Your task to perform on an android device: open app "Upside-Cash back on gas & food" (install if not already installed) and go to login screen Image 0: 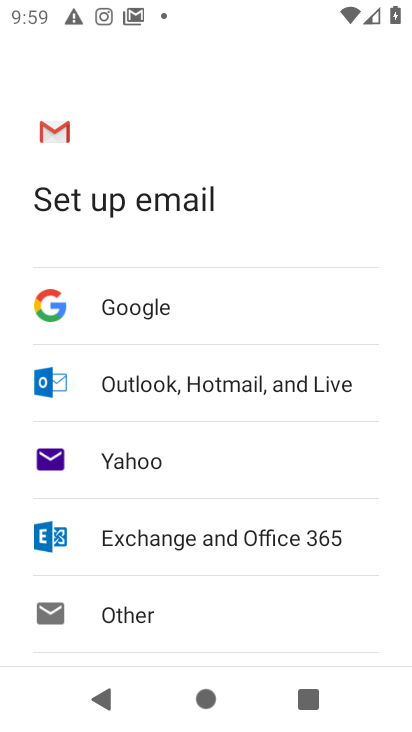
Step 0: press home button
Your task to perform on an android device: open app "Upside-Cash back on gas & food" (install if not already installed) and go to login screen Image 1: 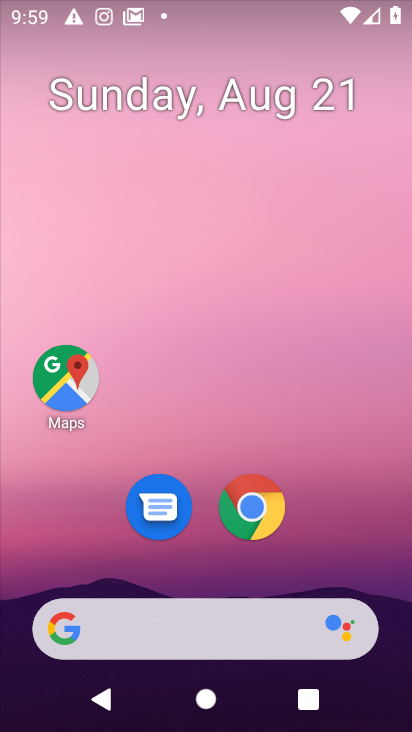
Step 1: drag from (195, 388) to (208, 27)
Your task to perform on an android device: open app "Upside-Cash back on gas & food" (install if not already installed) and go to login screen Image 2: 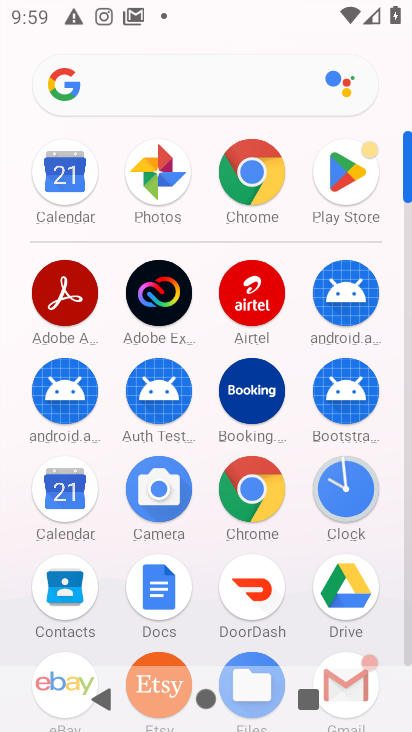
Step 2: click (345, 192)
Your task to perform on an android device: open app "Upside-Cash back on gas & food" (install if not already installed) and go to login screen Image 3: 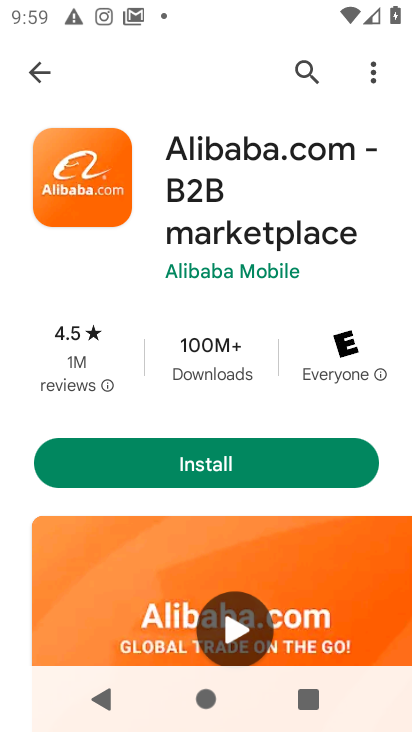
Step 3: click (30, 69)
Your task to perform on an android device: open app "Upside-Cash back on gas & food" (install if not already installed) and go to login screen Image 4: 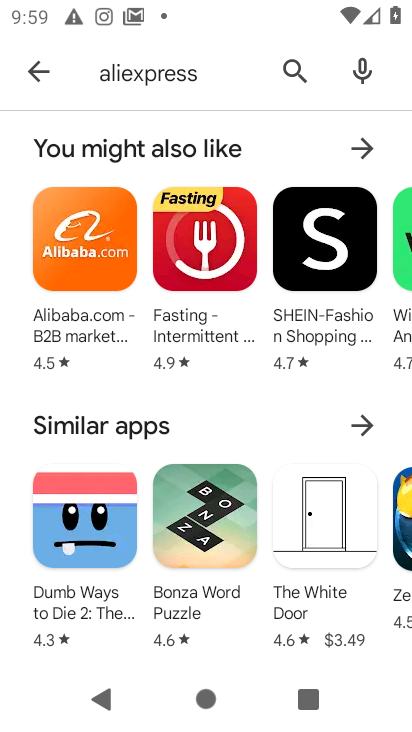
Step 4: click (37, 66)
Your task to perform on an android device: open app "Upside-Cash back on gas & food" (install if not already installed) and go to login screen Image 5: 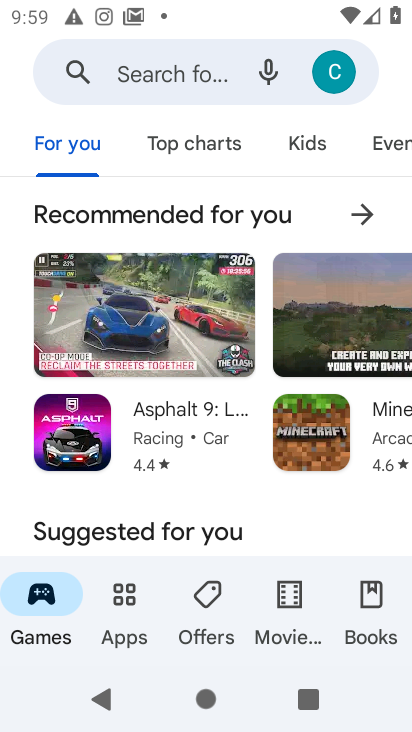
Step 5: click (152, 82)
Your task to perform on an android device: open app "Upside-Cash back on gas & food" (install if not already installed) and go to login screen Image 6: 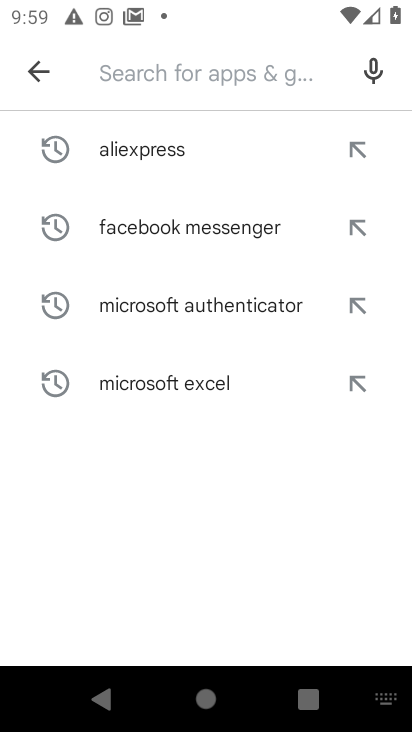
Step 6: type "Upside-Cash back on gas & food"
Your task to perform on an android device: open app "Upside-Cash back on gas & food" (install if not already installed) and go to login screen Image 7: 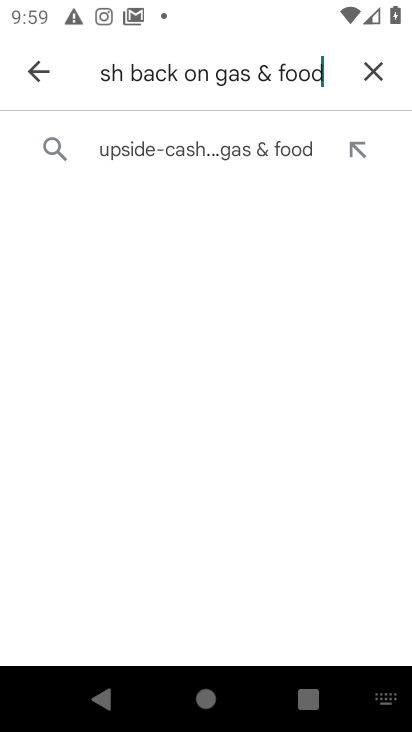
Step 7: click (246, 157)
Your task to perform on an android device: open app "Upside-Cash back on gas & food" (install if not already installed) and go to login screen Image 8: 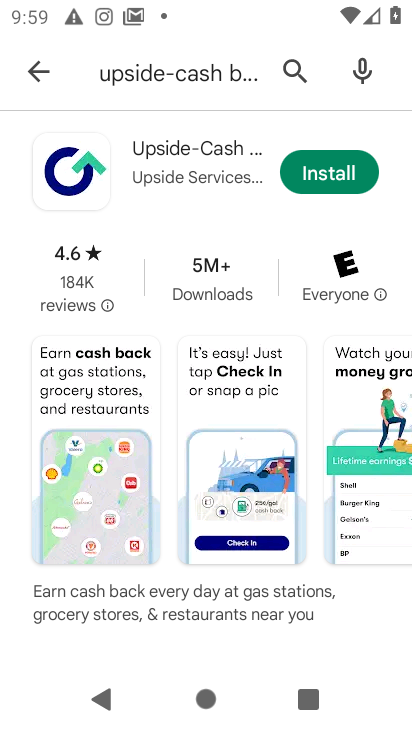
Step 8: click (307, 168)
Your task to perform on an android device: open app "Upside-Cash back on gas & food" (install if not already installed) and go to login screen Image 9: 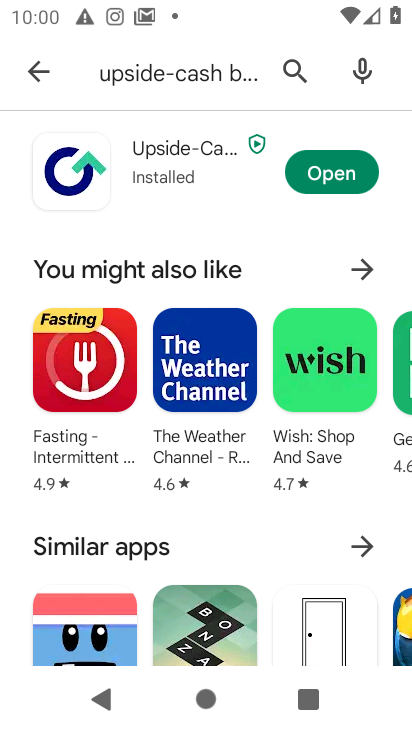
Step 9: click (346, 174)
Your task to perform on an android device: open app "Upside-Cash back on gas & food" (install if not already installed) and go to login screen Image 10: 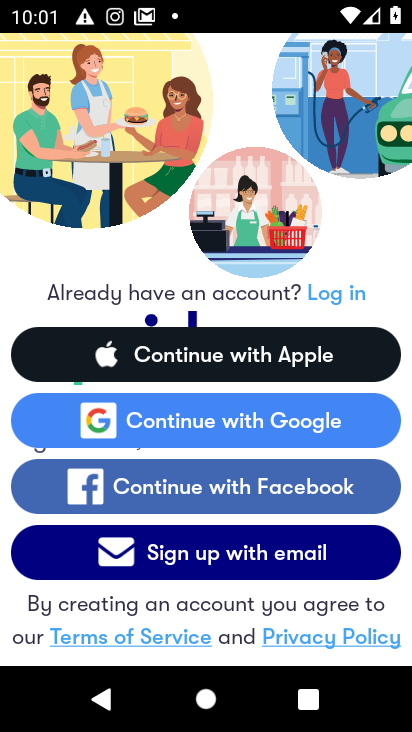
Step 10: click (309, 295)
Your task to perform on an android device: open app "Upside-Cash back on gas & food" (install if not already installed) and go to login screen Image 11: 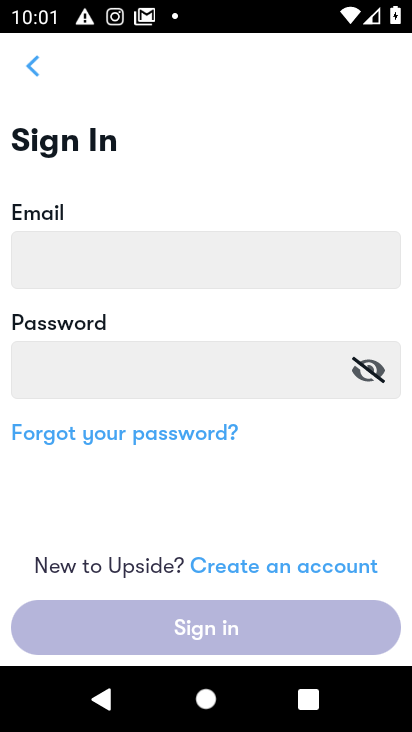
Step 11: task complete